Your task to perform on an android device: set an alarm Image 0: 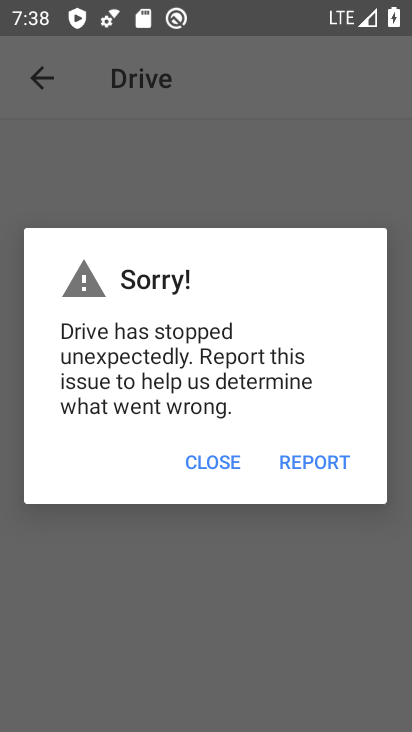
Step 0: press home button
Your task to perform on an android device: set an alarm Image 1: 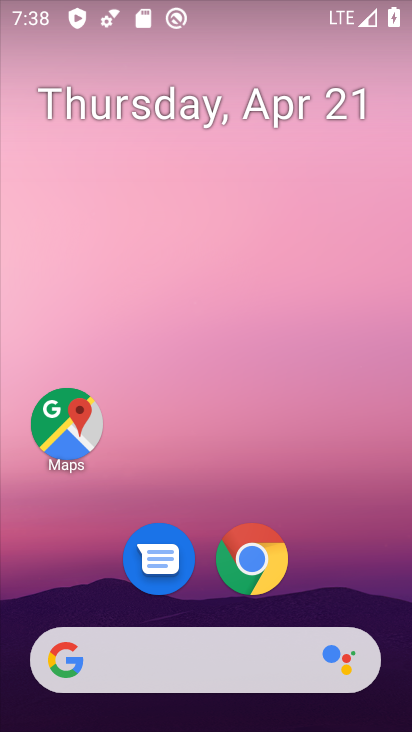
Step 1: drag from (381, 484) to (380, 96)
Your task to perform on an android device: set an alarm Image 2: 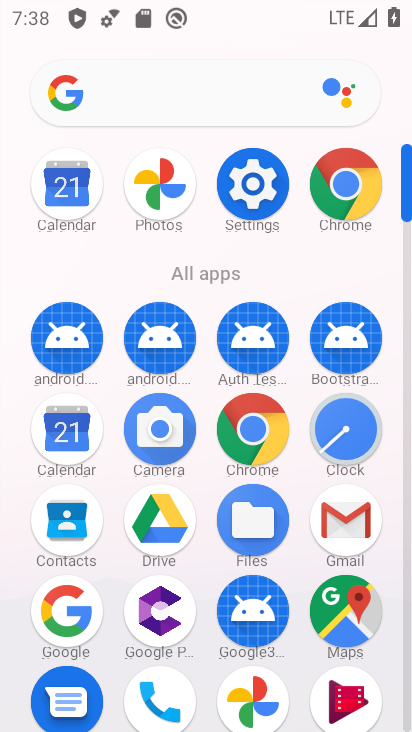
Step 2: click (335, 440)
Your task to perform on an android device: set an alarm Image 3: 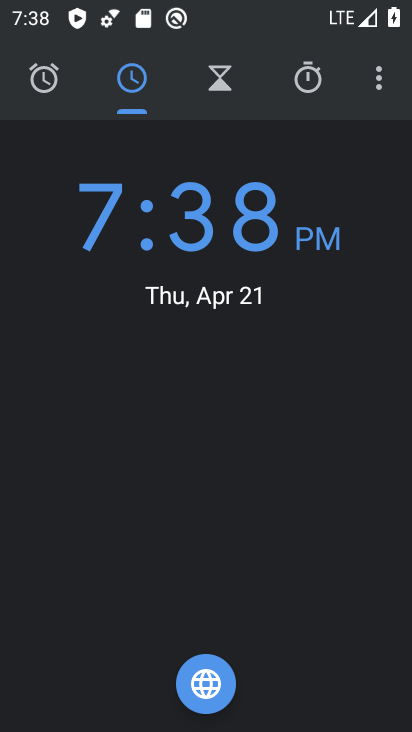
Step 3: click (59, 75)
Your task to perform on an android device: set an alarm Image 4: 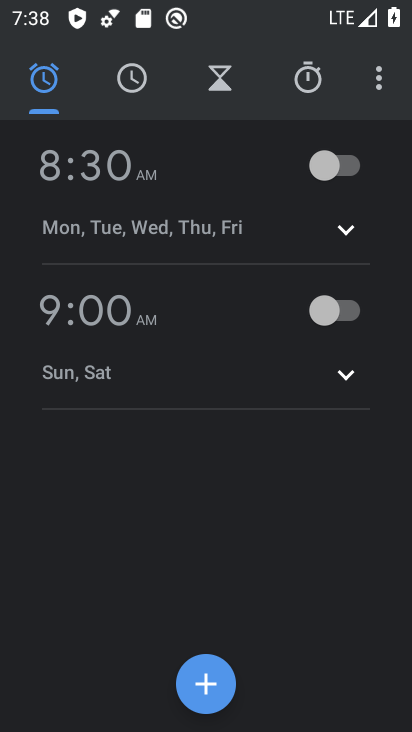
Step 4: click (192, 687)
Your task to perform on an android device: set an alarm Image 5: 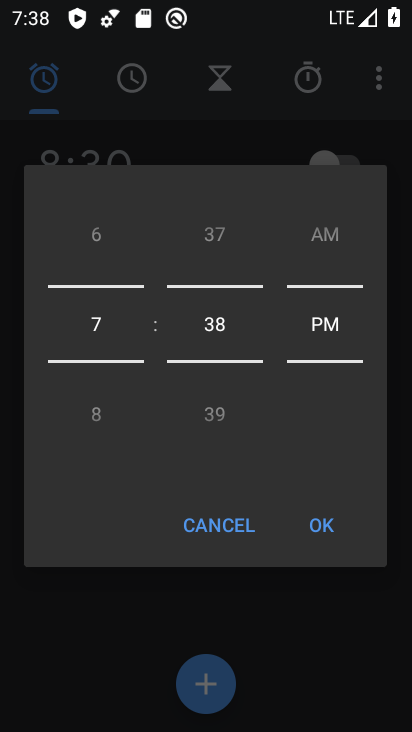
Step 5: click (324, 530)
Your task to perform on an android device: set an alarm Image 6: 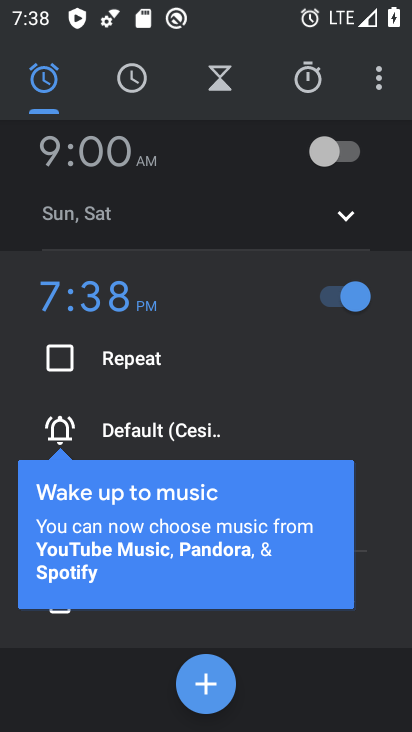
Step 6: task complete